Your task to perform on an android device: open app "Spotify" (install if not already installed) Image 0: 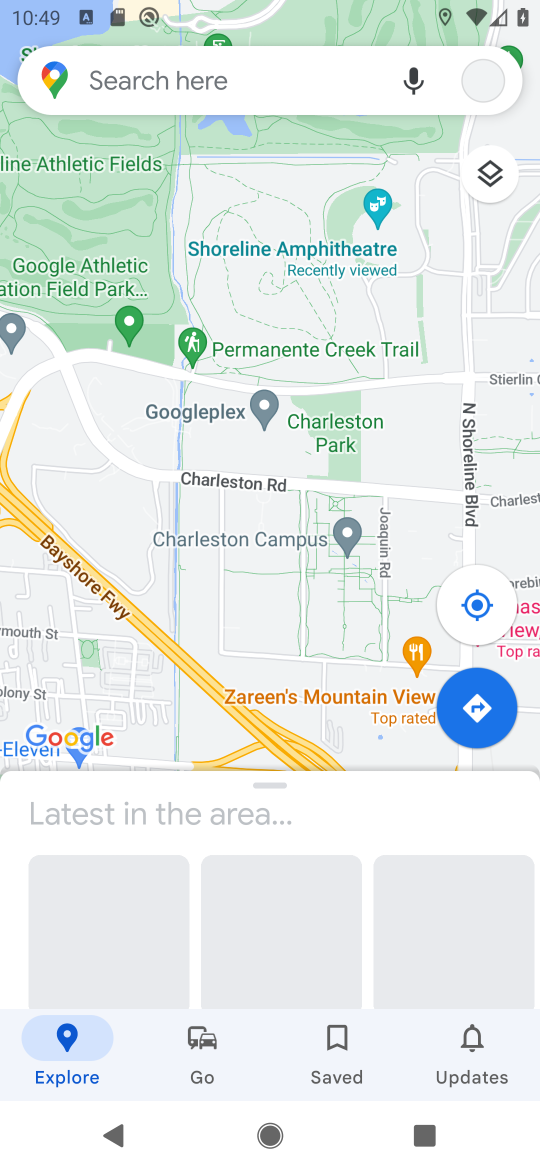
Step 0: press home button
Your task to perform on an android device: open app "Spotify" (install if not already installed) Image 1: 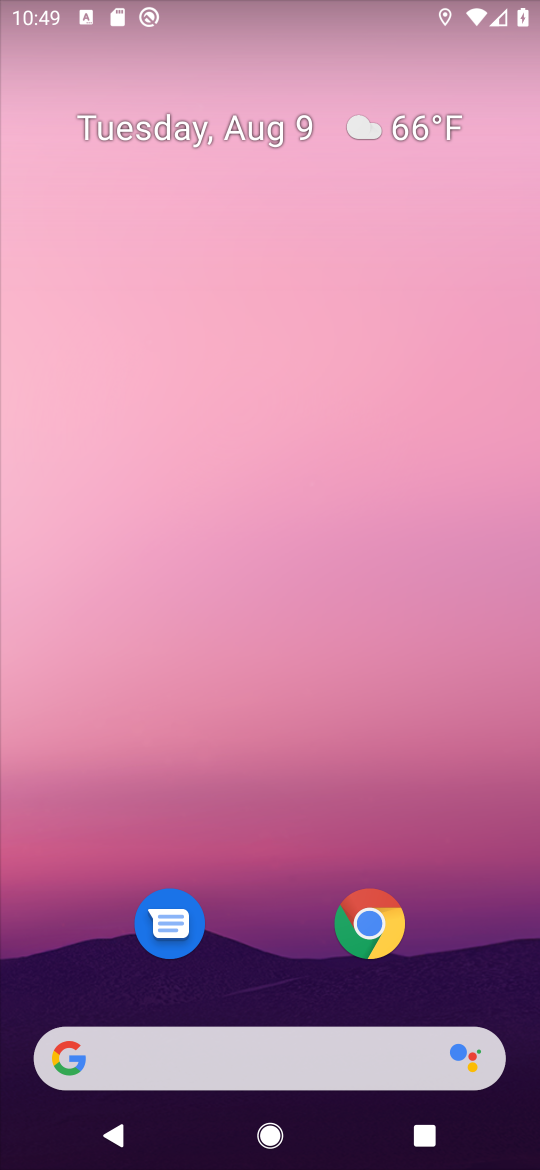
Step 1: drag from (267, 951) to (311, 18)
Your task to perform on an android device: open app "Spotify" (install if not already installed) Image 2: 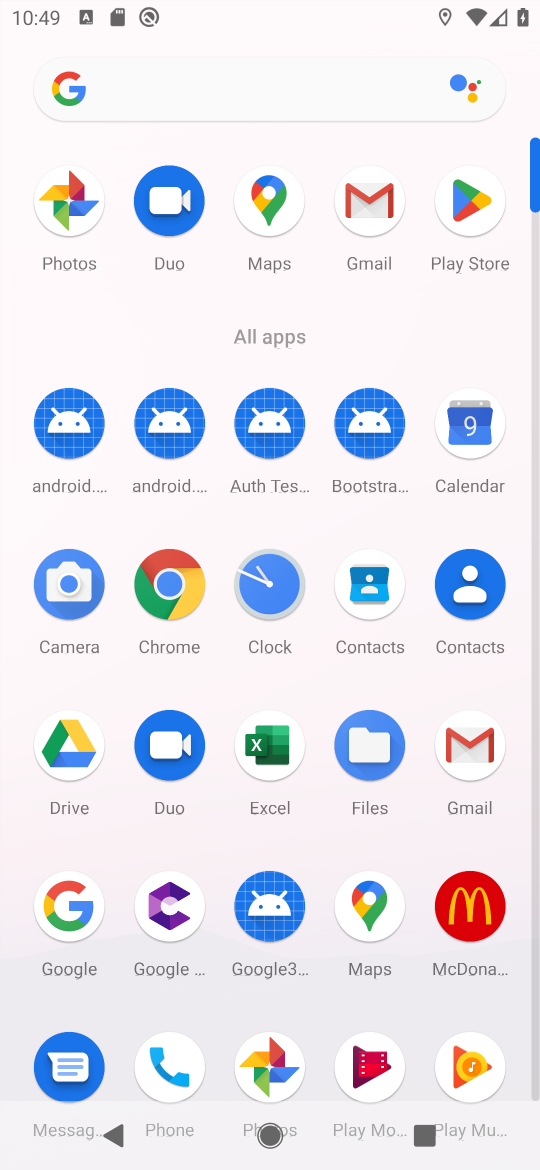
Step 2: click (466, 188)
Your task to perform on an android device: open app "Spotify" (install if not already installed) Image 3: 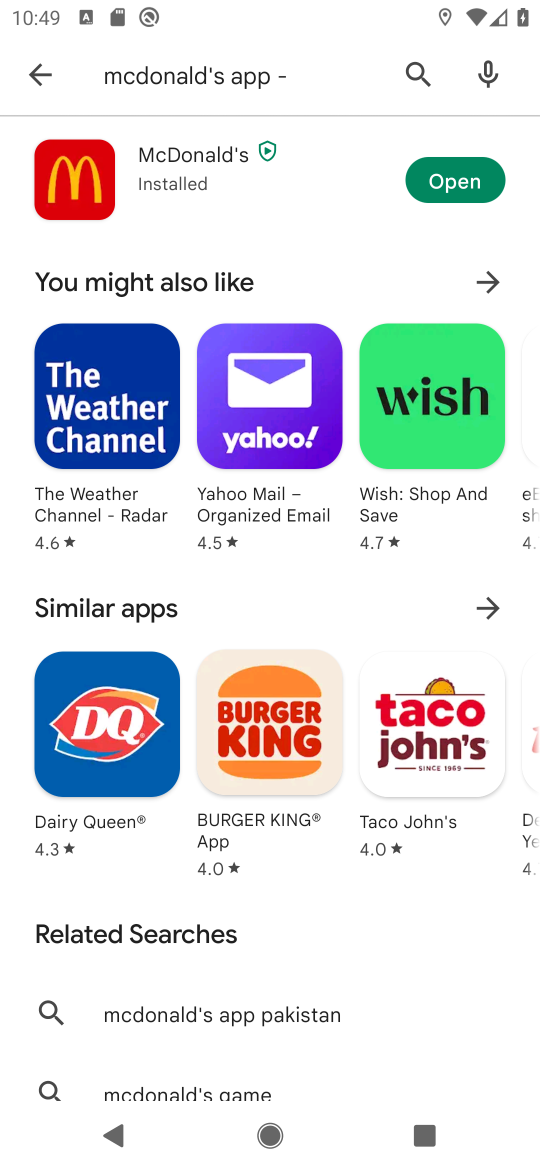
Step 3: click (411, 72)
Your task to perform on an android device: open app "Spotify" (install if not already installed) Image 4: 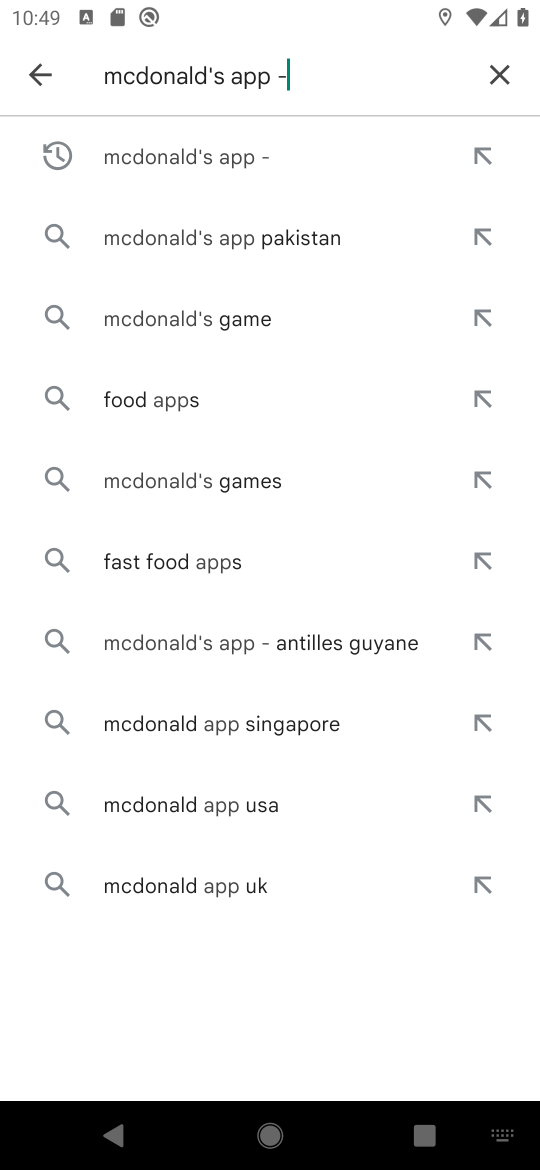
Step 4: click (498, 74)
Your task to perform on an android device: open app "Spotify" (install if not already installed) Image 5: 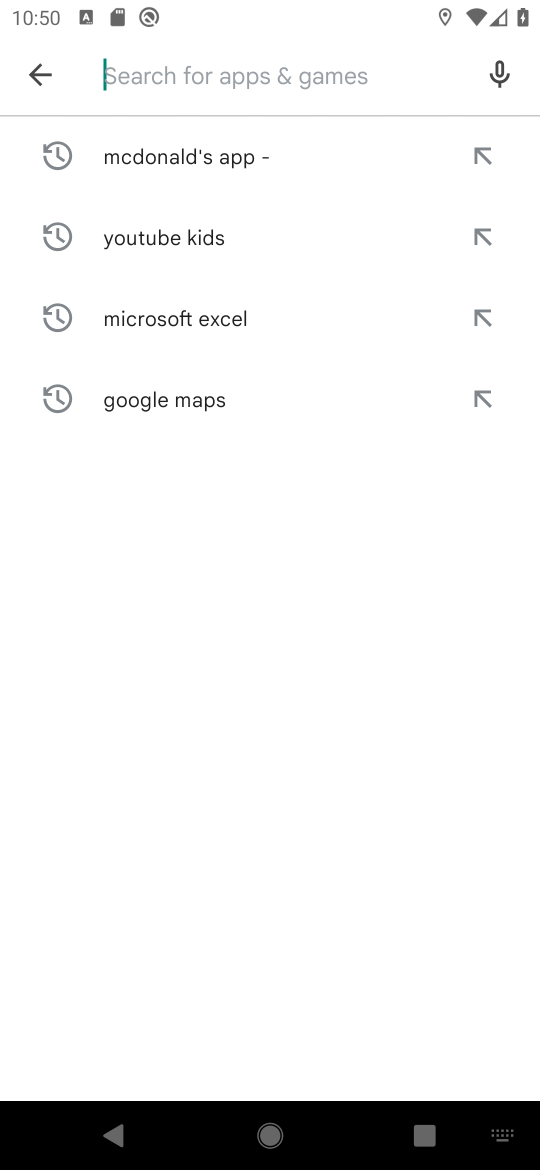
Step 5: type "Spotify"
Your task to perform on an android device: open app "Spotify" (install if not already installed) Image 6: 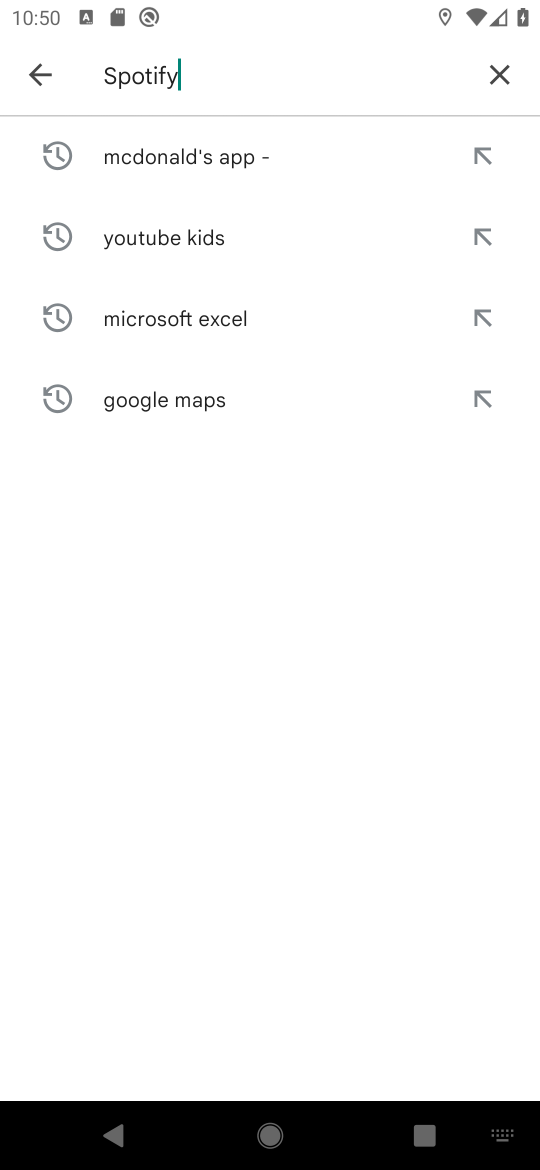
Step 6: type ""
Your task to perform on an android device: open app "Spotify" (install if not already installed) Image 7: 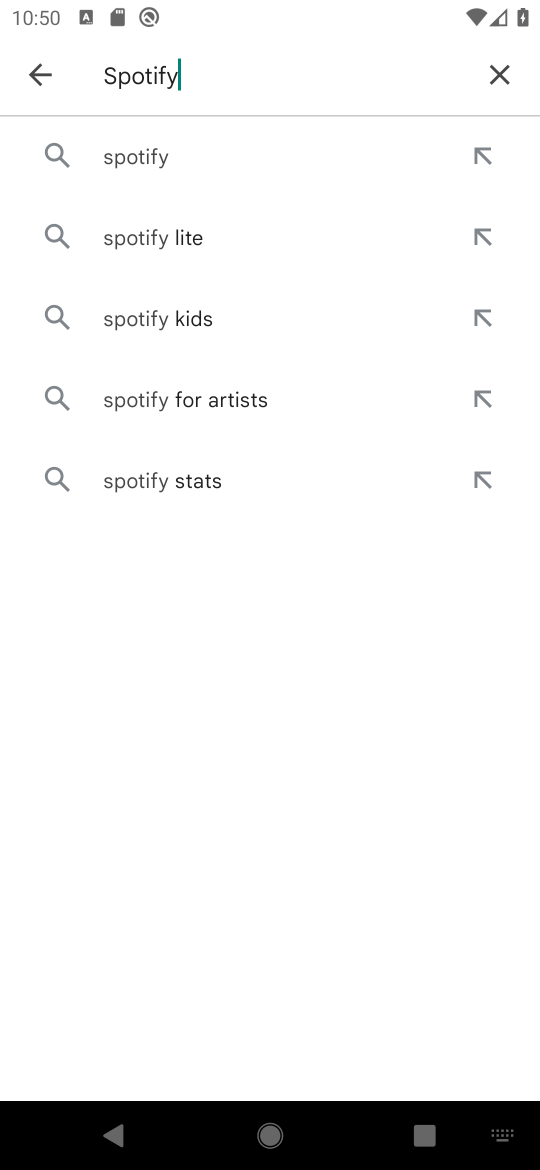
Step 7: click (192, 147)
Your task to perform on an android device: open app "Spotify" (install if not already installed) Image 8: 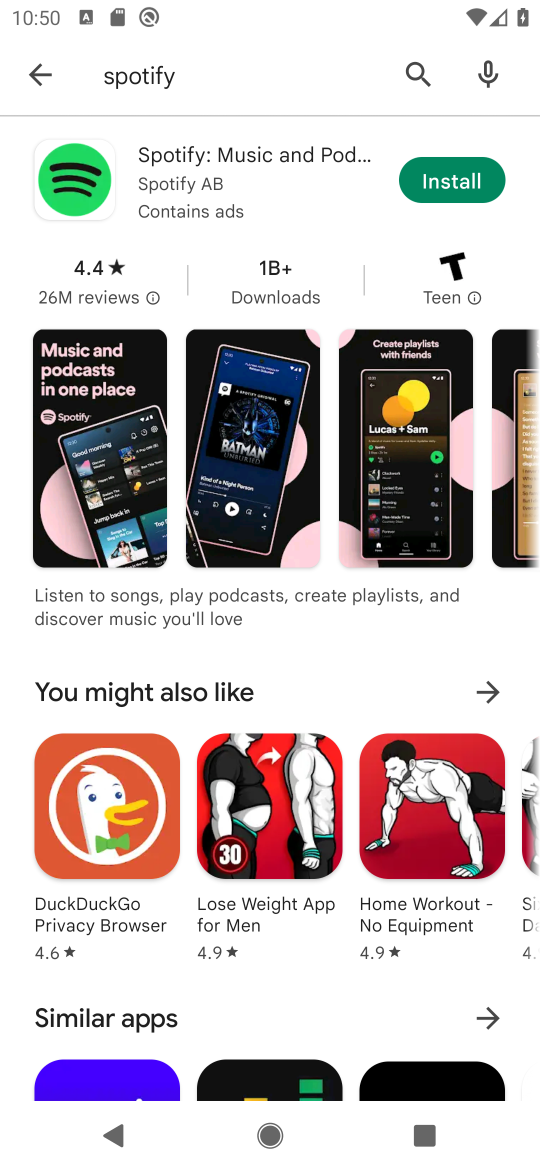
Step 8: click (452, 176)
Your task to perform on an android device: open app "Spotify" (install if not already installed) Image 9: 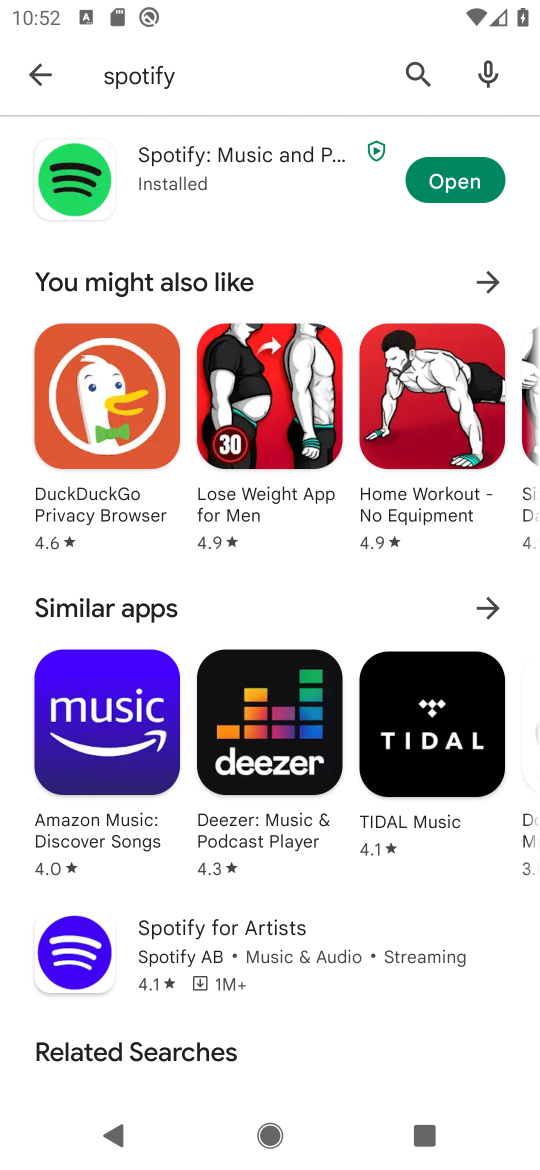
Step 9: click (449, 179)
Your task to perform on an android device: open app "Spotify" (install if not already installed) Image 10: 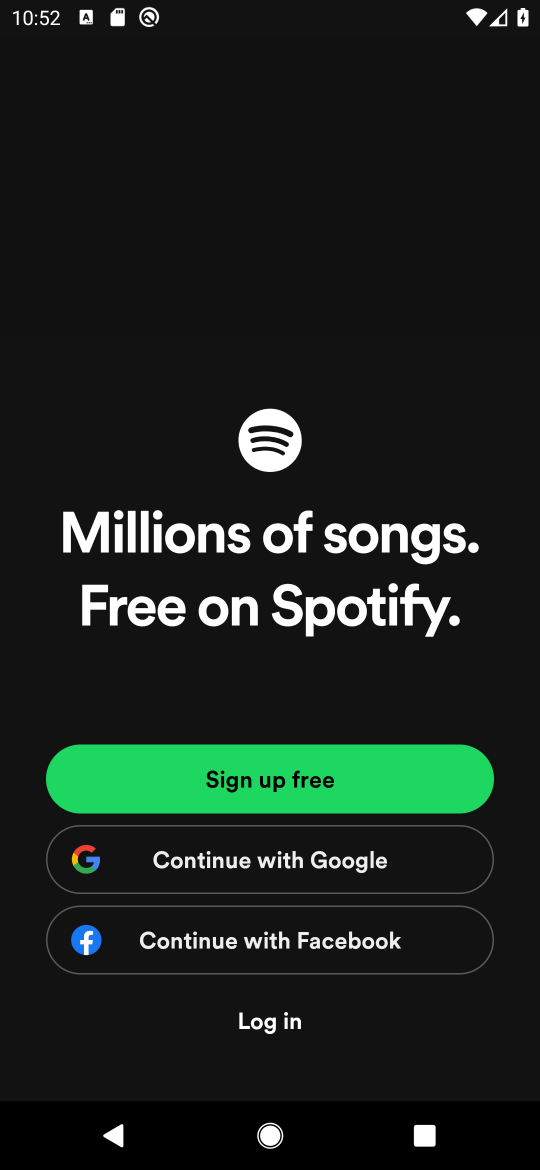
Step 10: click (282, 869)
Your task to perform on an android device: open app "Spotify" (install if not already installed) Image 11: 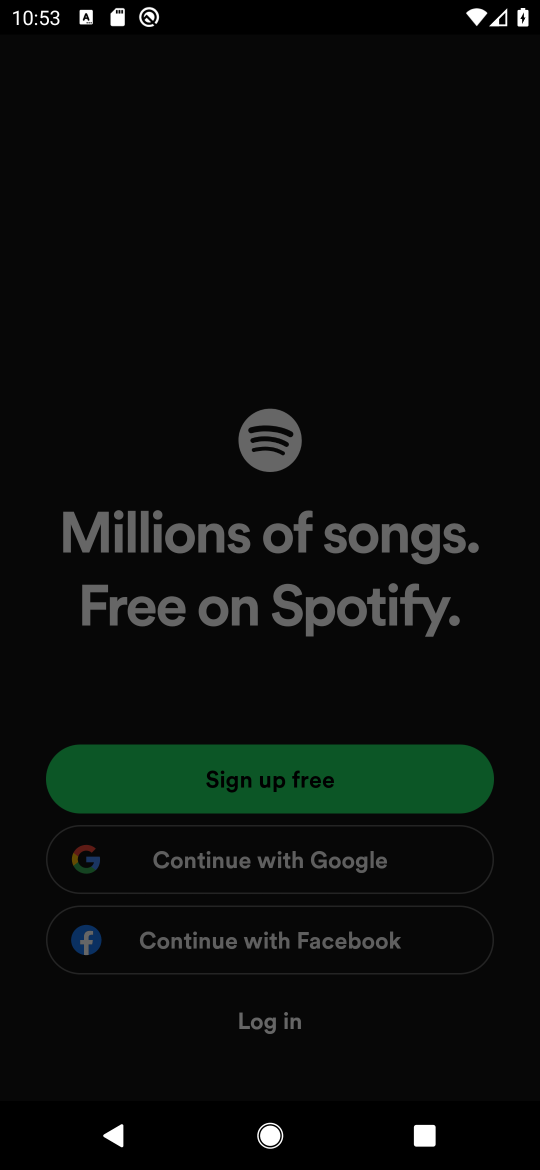
Step 11: task complete